Your task to perform on an android device: turn off translation in the chrome app Image 0: 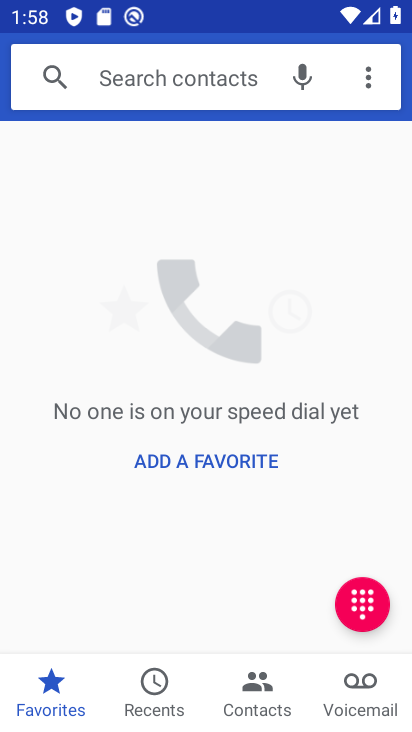
Step 0: press home button
Your task to perform on an android device: turn off translation in the chrome app Image 1: 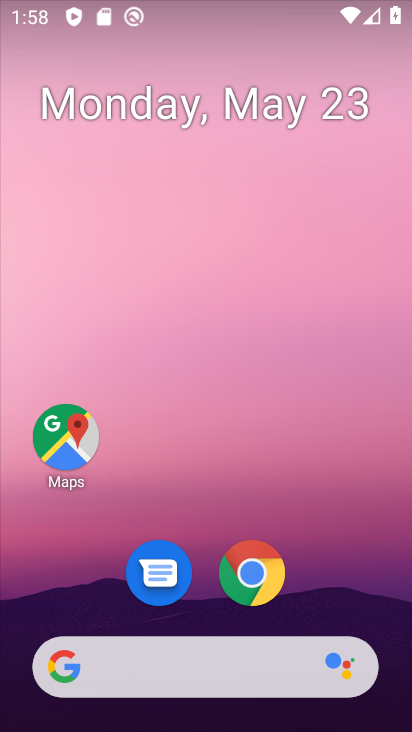
Step 1: drag from (378, 596) to (251, 332)
Your task to perform on an android device: turn off translation in the chrome app Image 2: 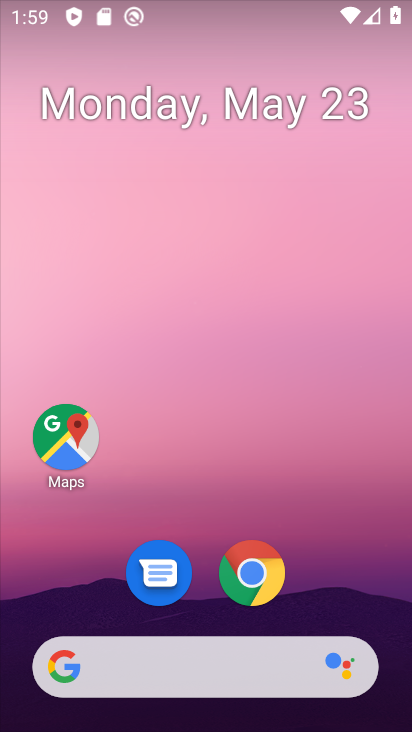
Step 2: drag from (321, 580) to (337, 89)
Your task to perform on an android device: turn off translation in the chrome app Image 3: 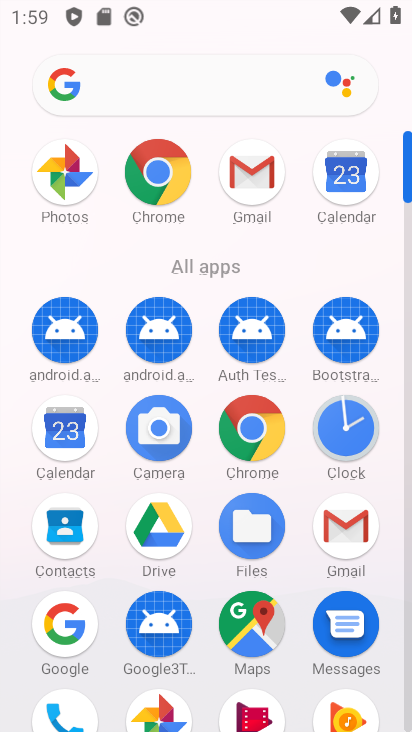
Step 3: click (261, 449)
Your task to perform on an android device: turn off translation in the chrome app Image 4: 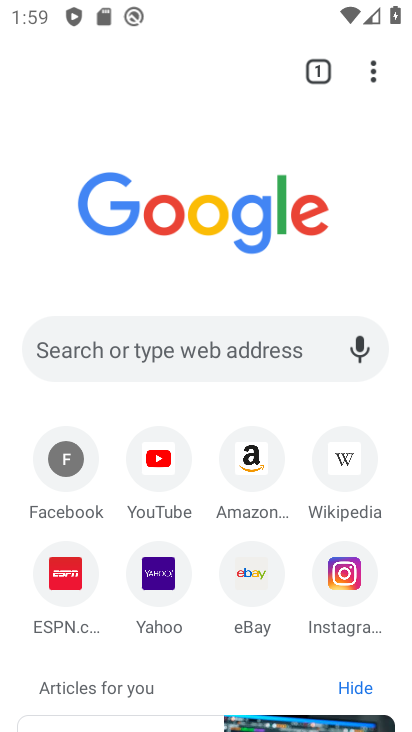
Step 4: click (371, 81)
Your task to perform on an android device: turn off translation in the chrome app Image 5: 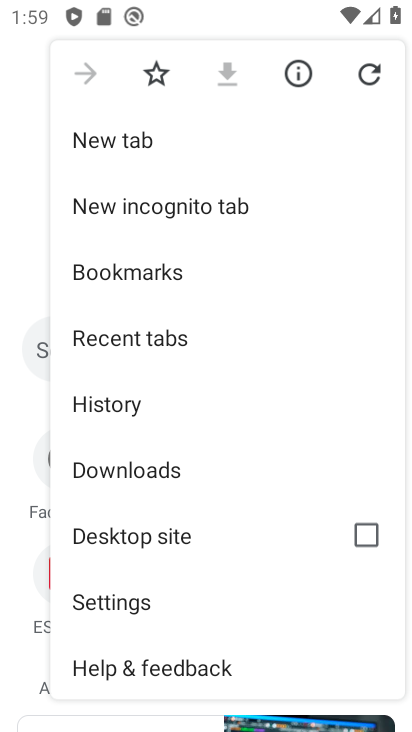
Step 5: drag from (247, 567) to (257, 432)
Your task to perform on an android device: turn off translation in the chrome app Image 6: 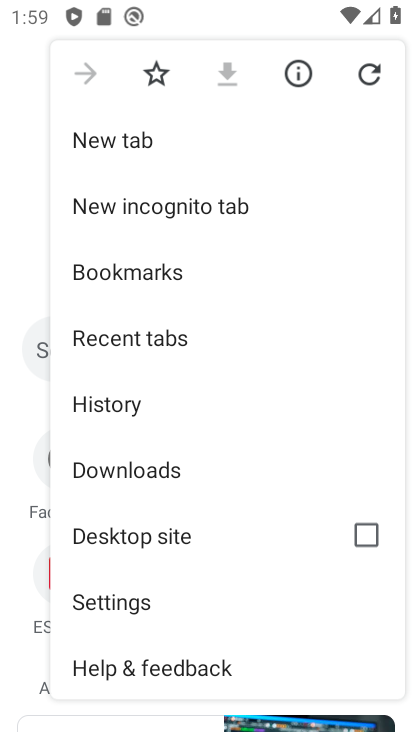
Step 6: click (145, 615)
Your task to perform on an android device: turn off translation in the chrome app Image 7: 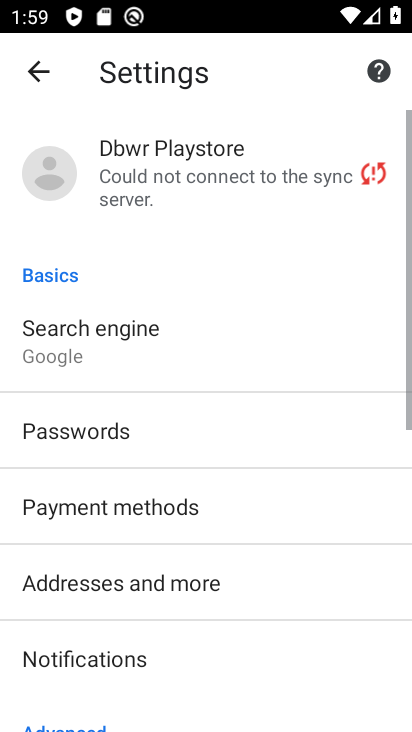
Step 7: drag from (290, 626) to (304, 474)
Your task to perform on an android device: turn off translation in the chrome app Image 8: 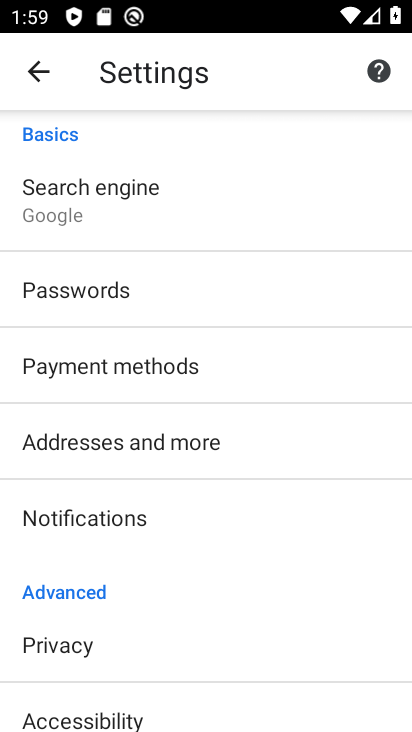
Step 8: drag from (300, 631) to (316, 472)
Your task to perform on an android device: turn off translation in the chrome app Image 9: 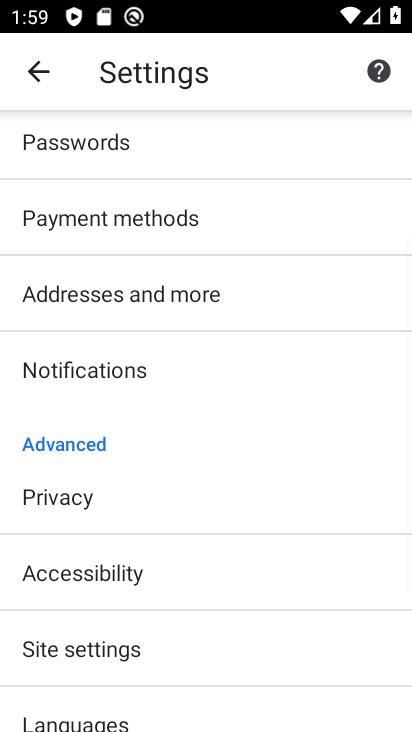
Step 9: drag from (319, 647) to (336, 499)
Your task to perform on an android device: turn off translation in the chrome app Image 10: 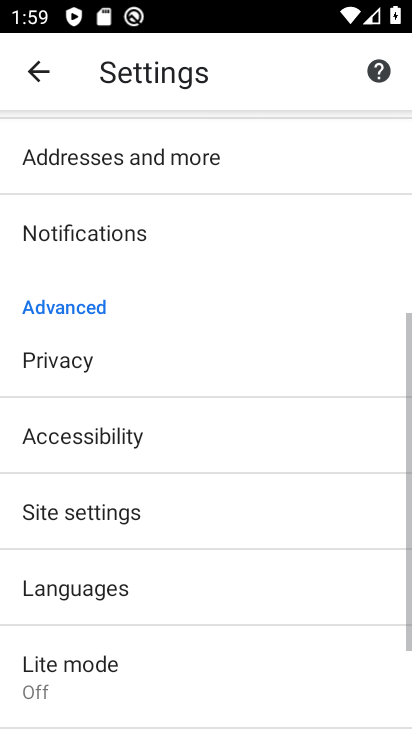
Step 10: drag from (333, 653) to (347, 488)
Your task to perform on an android device: turn off translation in the chrome app Image 11: 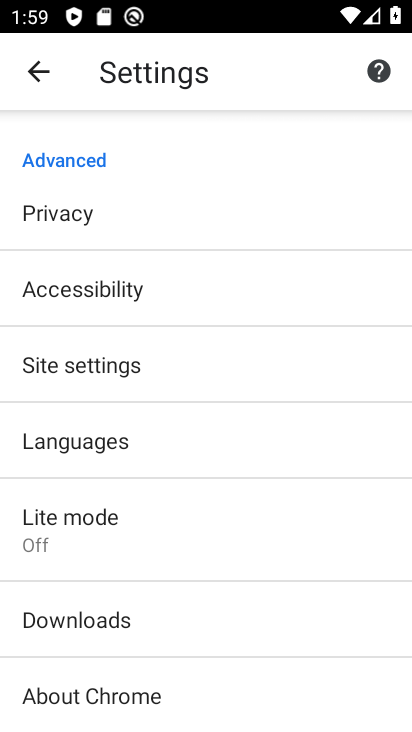
Step 11: drag from (335, 669) to (332, 417)
Your task to perform on an android device: turn off translation in the chrome app Image 12: 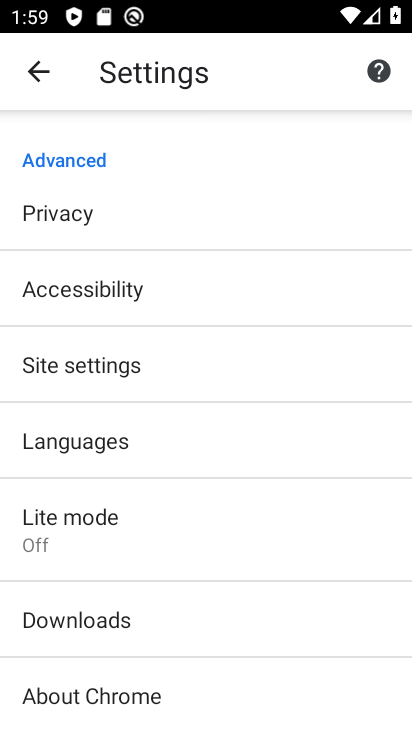
Step 12: drag from (367, 263) to (366, 341)
Your task to perform on an android device: turn off translation in the chrome app Image 13: 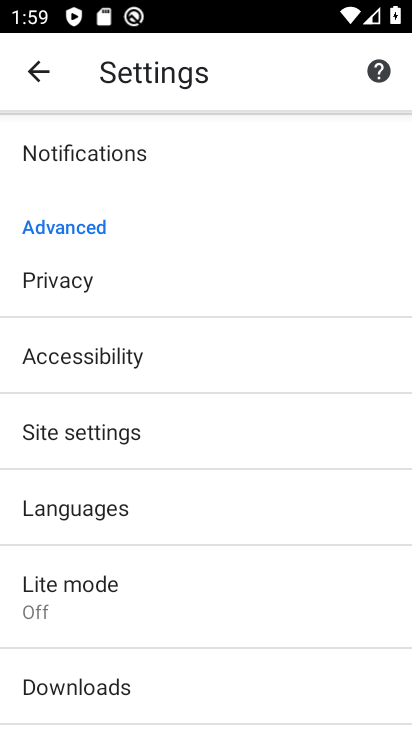
Step 13: drag from (342, 549) to (350, 367)
Your task to perform on an android device: turn off translation in the chrome app Image 14: 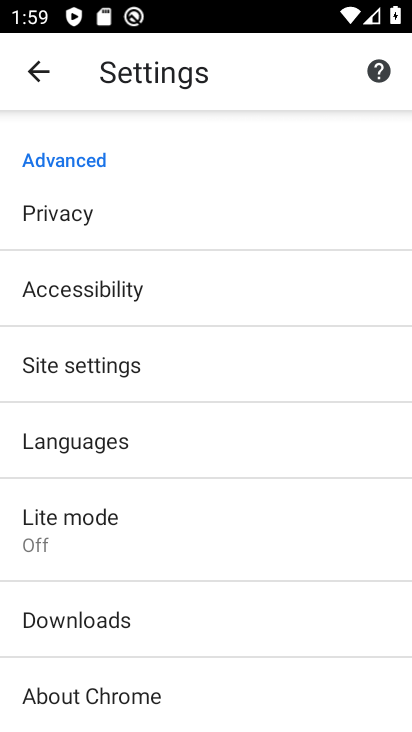
Step 14: click (150, 527)
Your task to perform on an android device: turn off translation in the chrome app Image 15: 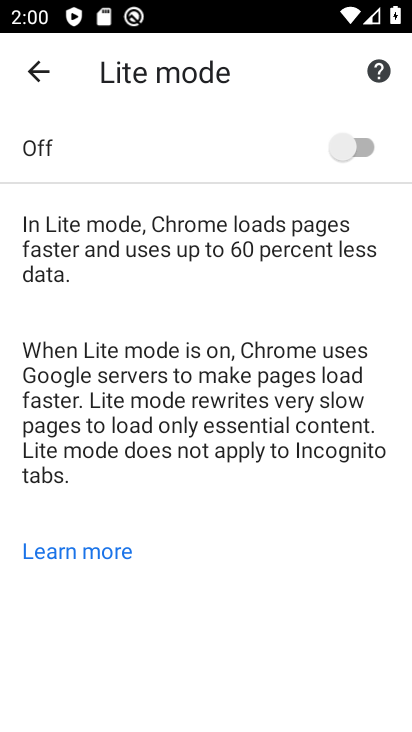
Step 15: task complete